Your task to perform on an android device: Go to network settings Image 0: 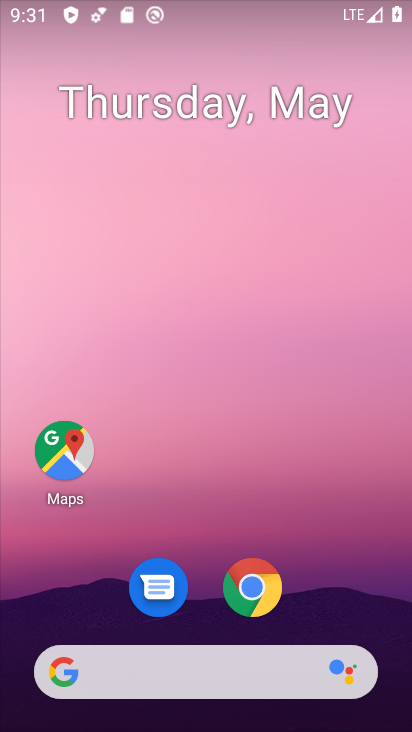
Step 0: drag from (382, 632) to (207, 13)
Your task to perform on an android device: Go to network settings Image 1: 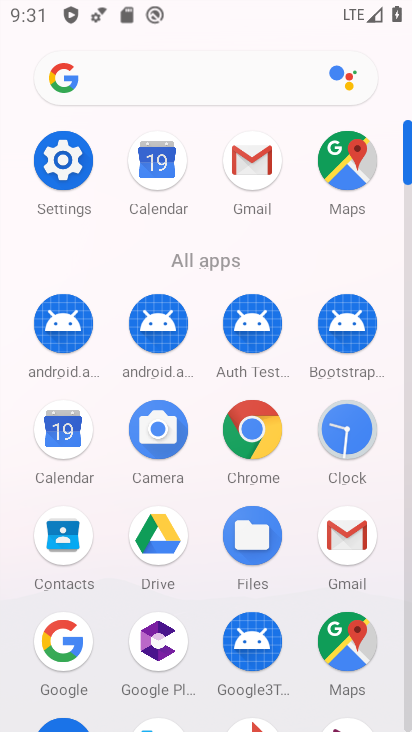
Step 1: click (63, 159)
Your task to perform on an android device: Go to network settings Image 2: 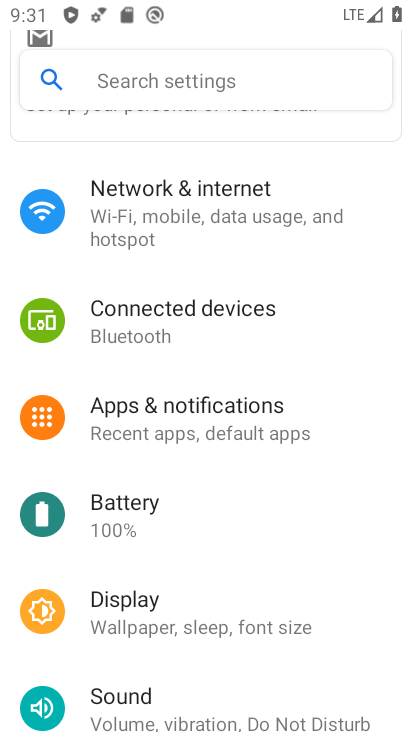
Step 2: click (152, 210)
Your task to perform on an android device: Go to network settings Image 3: 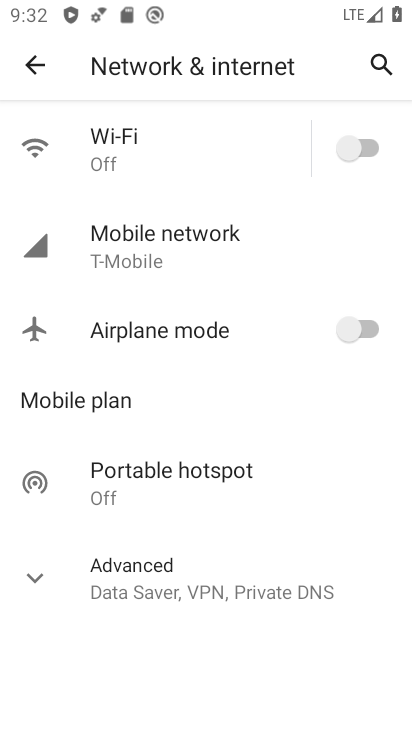
Step 3: click (137, 253)
Your task to perform on an android device: Go to network settings Image 4: 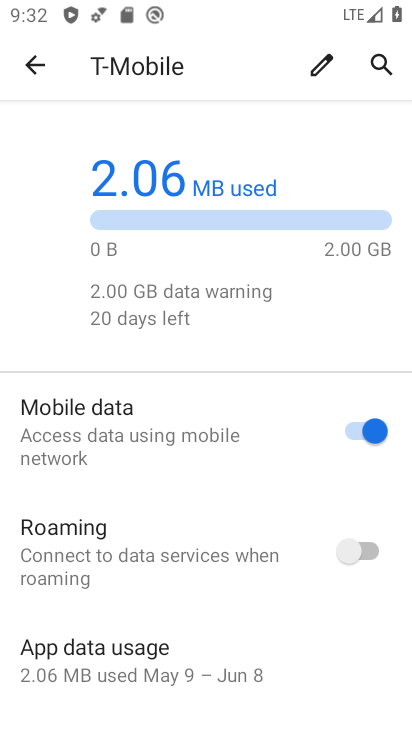
Step 4: drag from (89, 558) to (77, 61)
Your task to perform on an android device: Go to network settings Image 5: 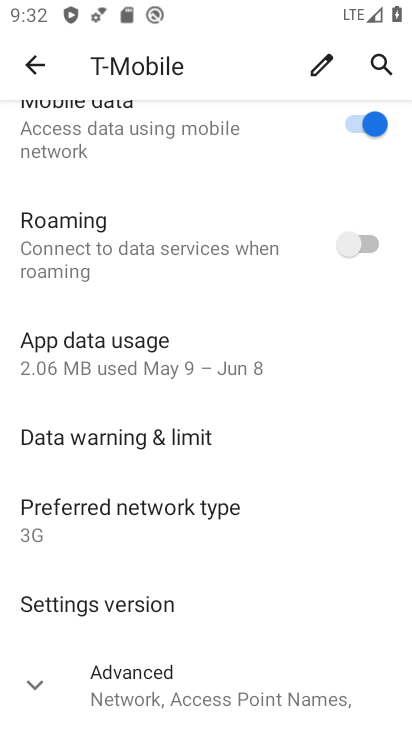
Step 5: click (36, 688)
Your task to perform on an android device: Go to network settings Image 6: 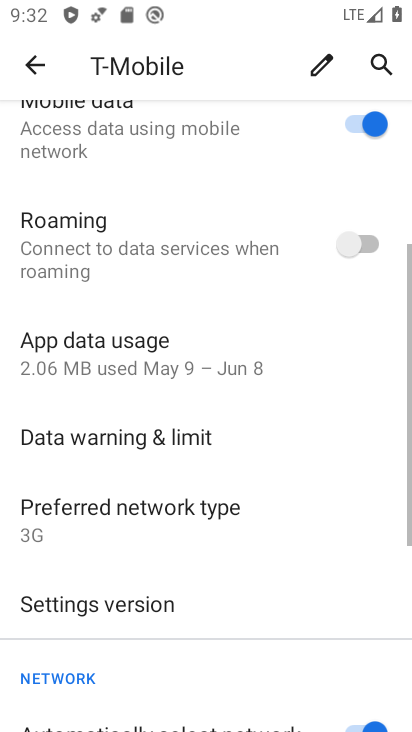
Step 6: task complete